Your task to perform on an android device: Go to network settings Image 0: 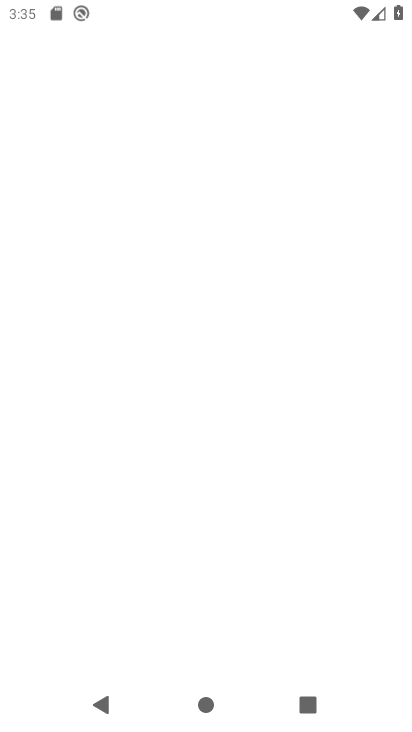
Step 0: click (236, 620)
Your task to perform on an android device: Go to network settings Image 1: 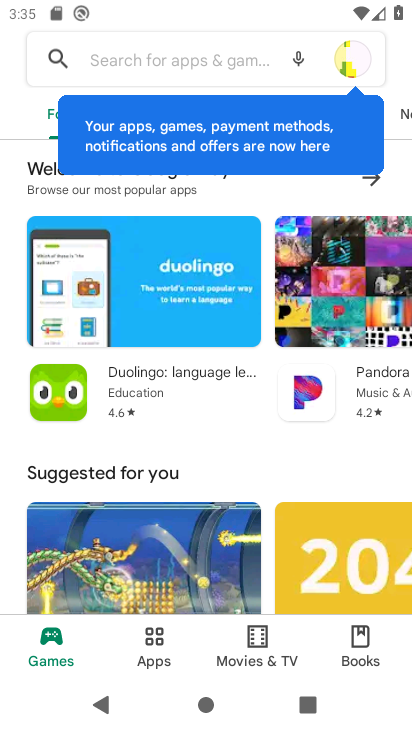
Step 1: press home button
Your task to perform on an android device: Go to network settings Image 2: 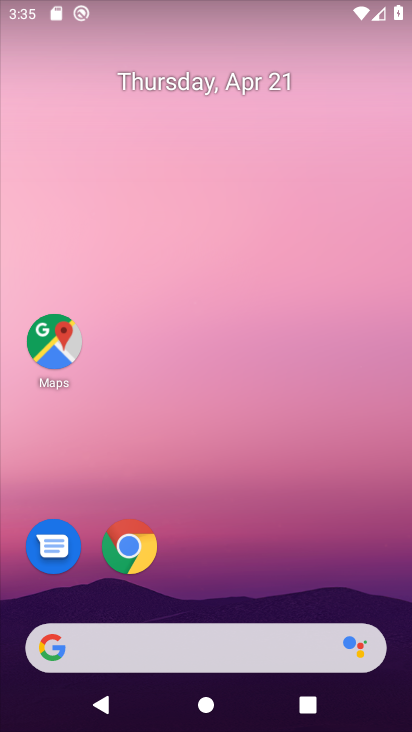
Step 2: drag from (217, 589) to (278, 31)
Your task to perform on an android device: Go to network settings Image 3: 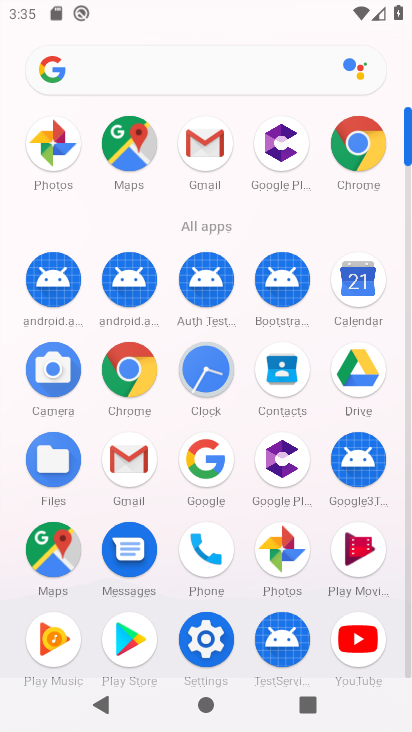
Step 3: click (205, 642)
Your task to perform on an android device: Go to network settings Image 4: 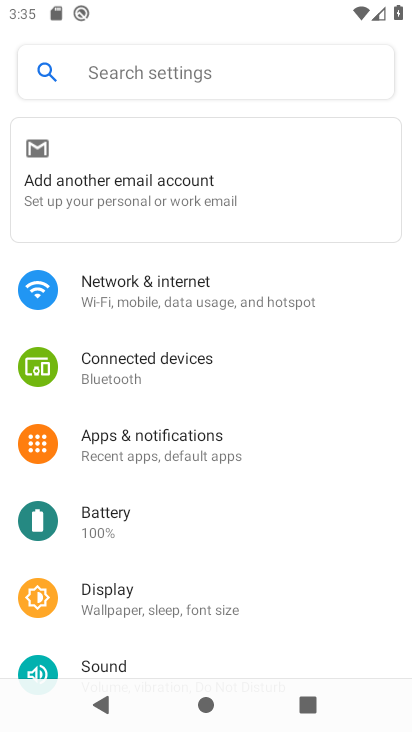
Step 4: click (175, 294)
Your task to perform on an android device: Go to network settings Image 5: 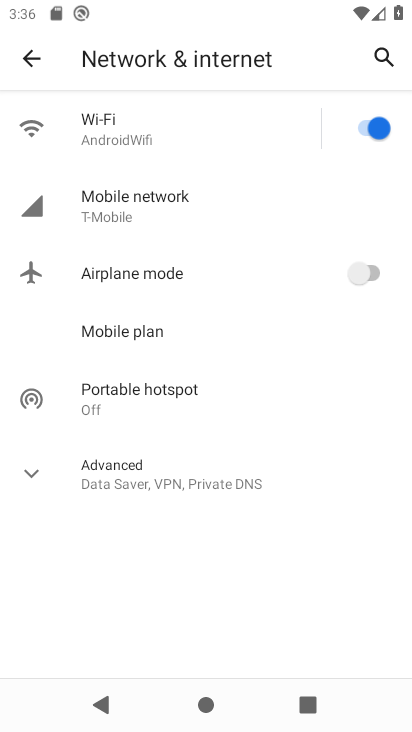
Step 5: click (228, 194)
Your task to perform on an android device: Go to network settings Image 6: 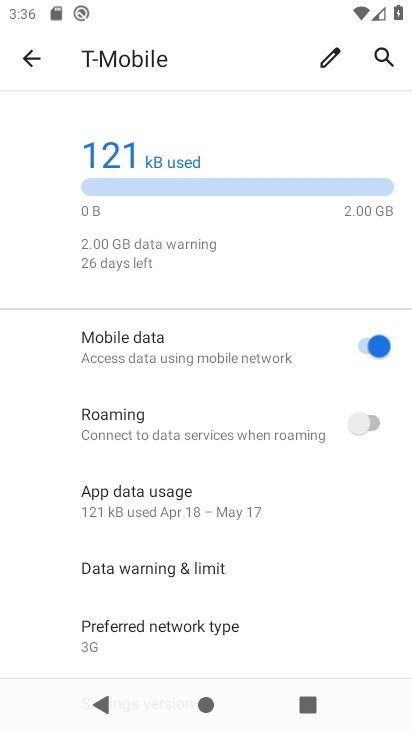
Step 6: task complete